Your task to perform on an android device: Open Google Image 0: 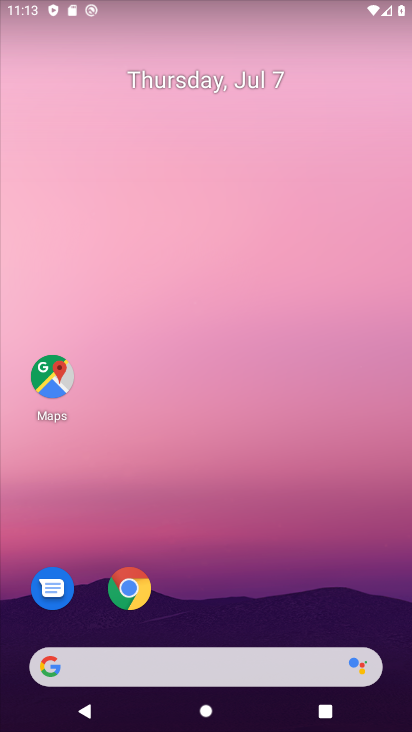
Step 0: drag from (201, 600) to (228, 77)
Your task to perform on an android device: Open Google Image 1: 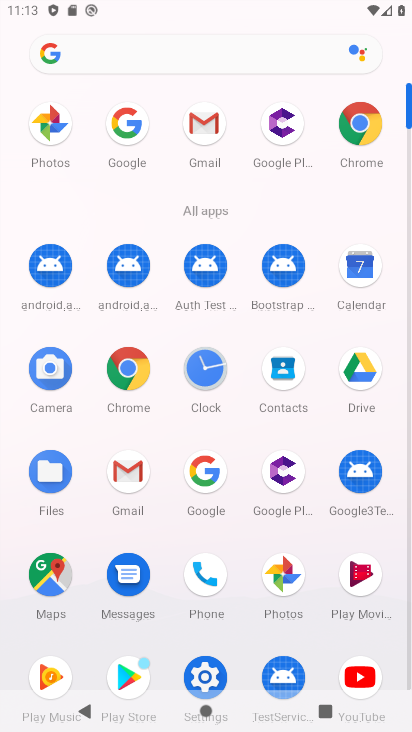
Step 1: click (205, 474)
Your task to perform on an android device: Open Google Image 2: 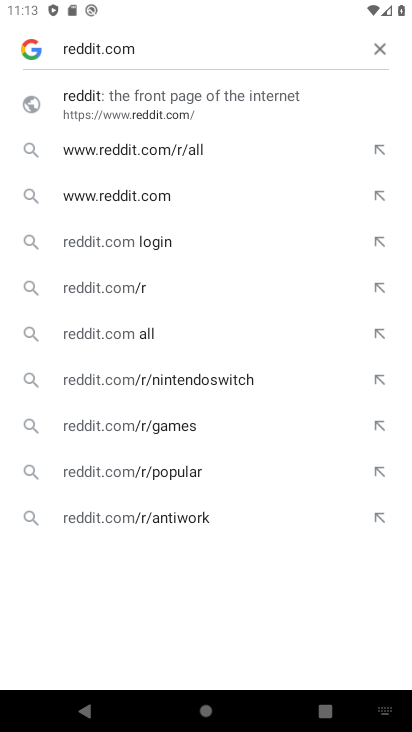
Step 2: click (379, 47)
Your task to perform on an android device: Open Google Image 3: 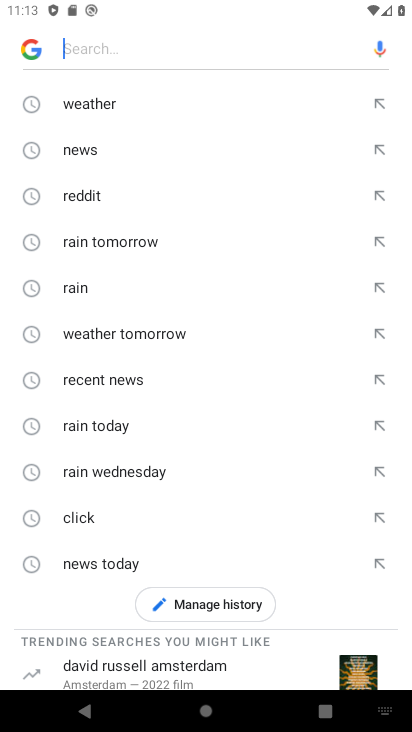
Step 3: task complete